Your task to perform on an android device: Open Maps and search for coffee Image 0: 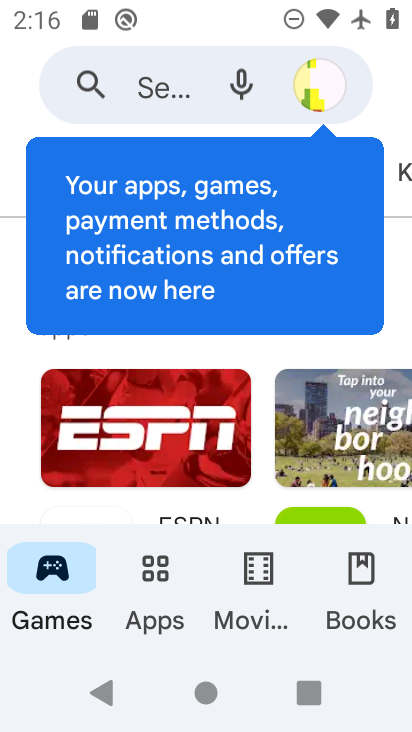
Step 0: press home button
Your task to perform on an android device: Open Maps and search for coffee Image 1: 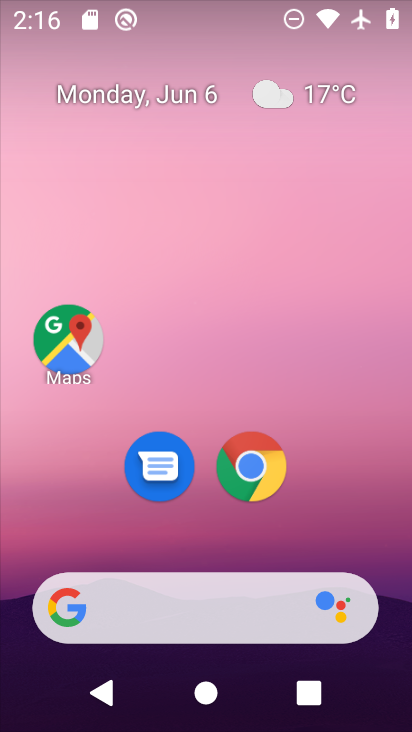
Step 1: click (80, 359)
Your task to perform on an android device: Open Maps and search for coffee Image 2: 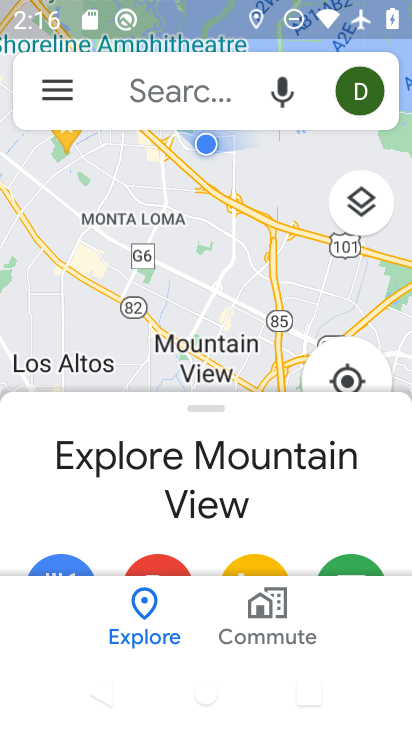
Step 2: click (203, 95)
Your task to perform on an android device: Open Maps and search for coffee Image 3: 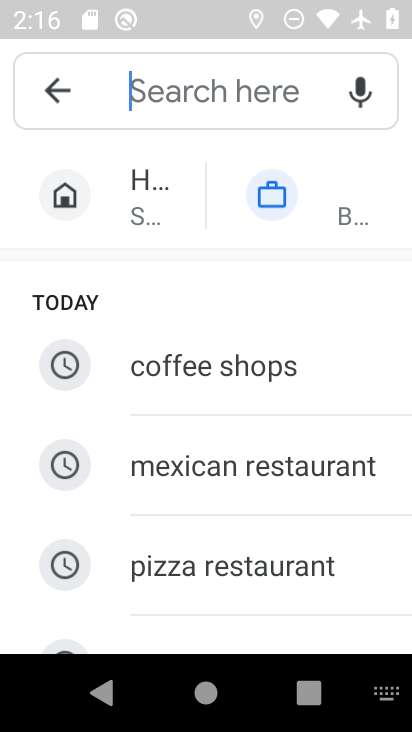
Step 3: type "coffee"
Your task to perform on an android device: Open Maps and search for coffee Image 4: 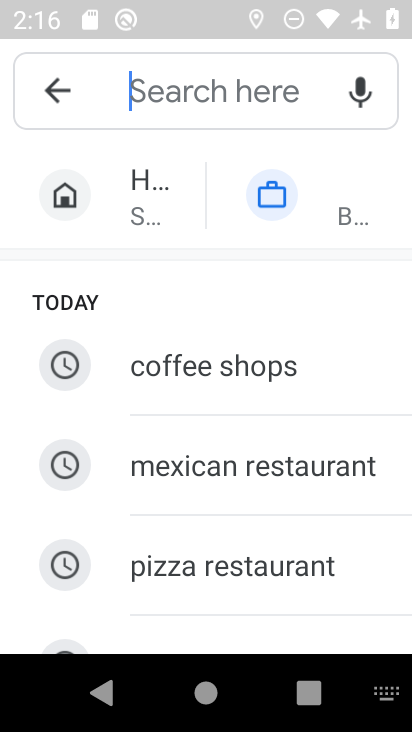
Step 4: click (244, 96)
Your task to perform on an android device: Open Maps and search for coffee Image 5: 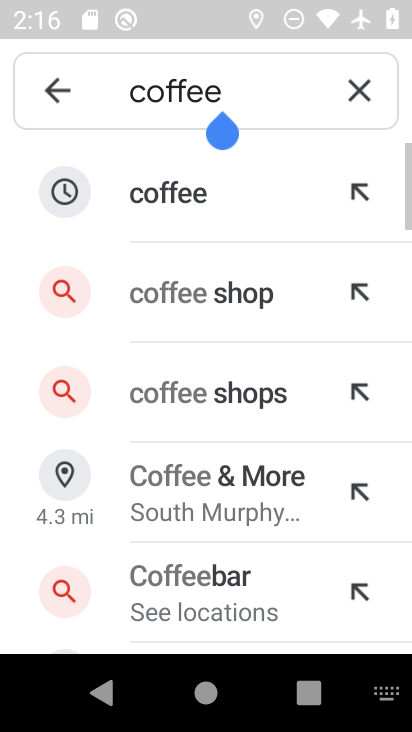
Step 5: click (197, 208)
Your task to perform on an android device: Open Maps and search for coffee Image 6: 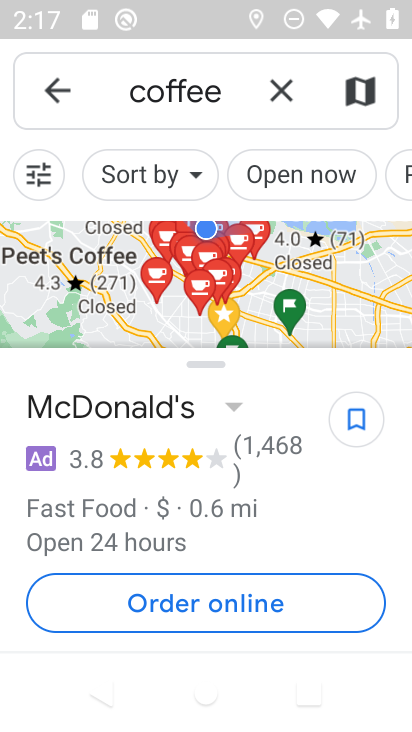
Step 6: task complete